Your task to perform on an android device: Open the phone app and click the voicemail tab. Image 0: 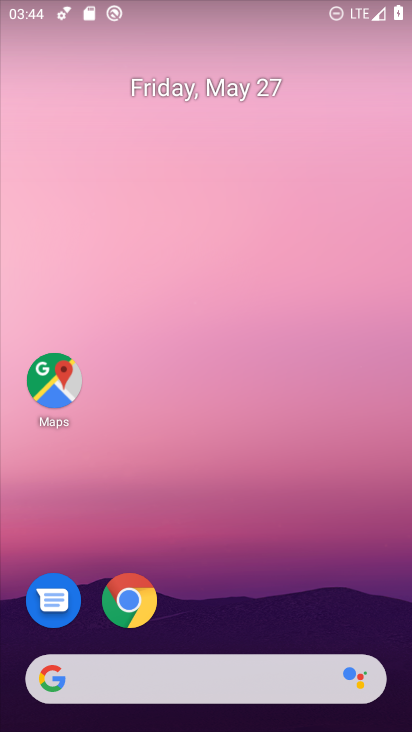
Step 0: drag from (244, 724) to (241, 216)
Your task to perform on an android device: Open the phone app and click the voicemail tab. Image 1: 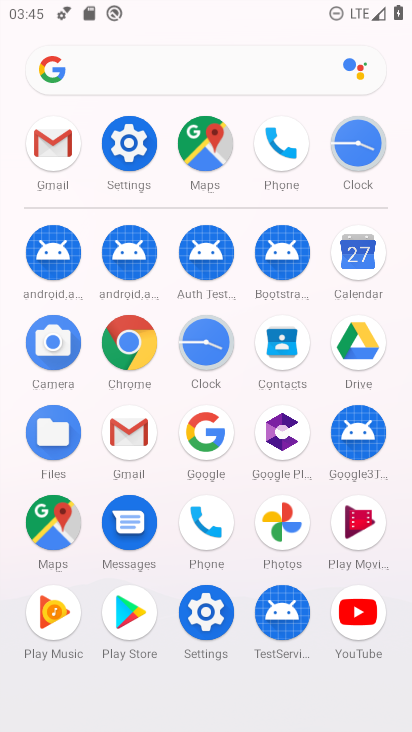
Step 1: click (208, 528)
Your task to perform on an android device: Open the phone app and click the voicemail tab. Image 2: 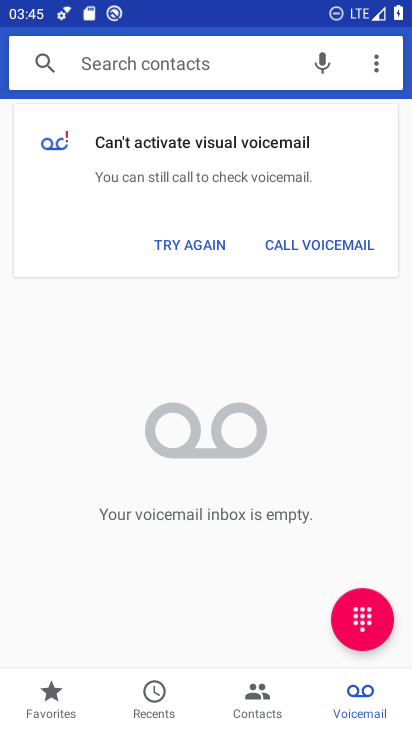
Step 2: task complete